Your task to perform on an android device: toggle data saver in the chrome app Image 0: 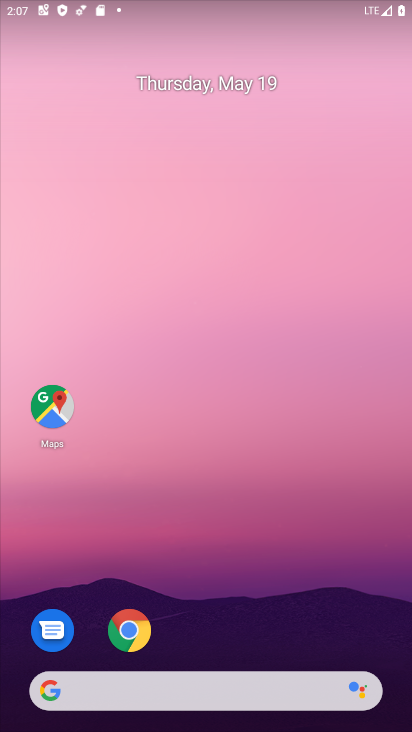
Step 0: click (129, 633)
Your task to perform on an android device: toggle data saver in the chrome app Image 1: 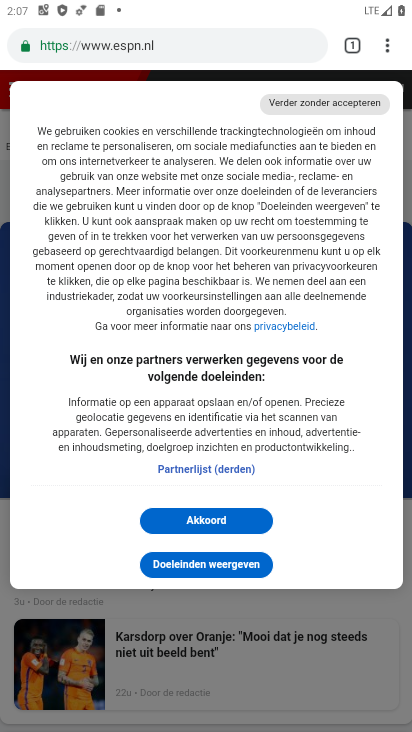
Step 1: click (385, 47)
Your task to perform on an android device: toggle data saver in the chrome app Image 2: 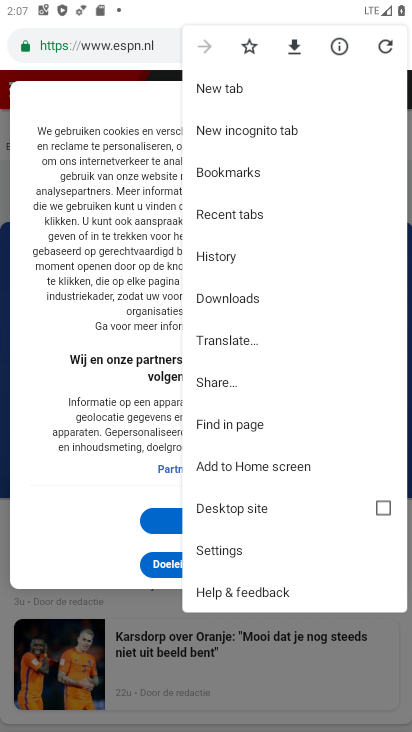
Step 2: click (230, 548)
Your task to perform on an android device: toggle data saver in the chrome app Image 3: 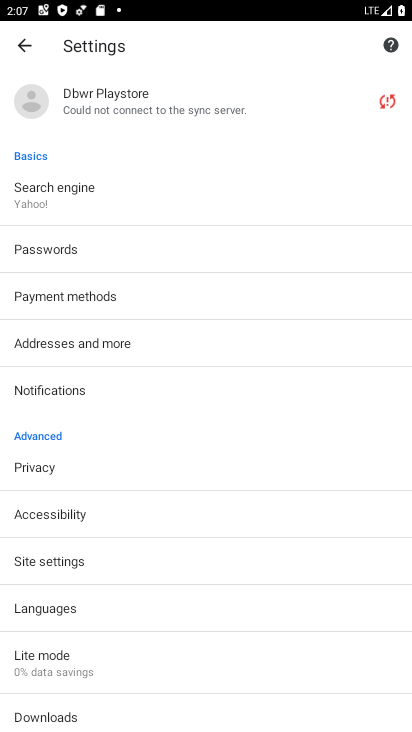
Step 3: drag from (181, 617) to (176, 413)
Your task to perform on an android device: toggle data saver in the chrome app Image 4: 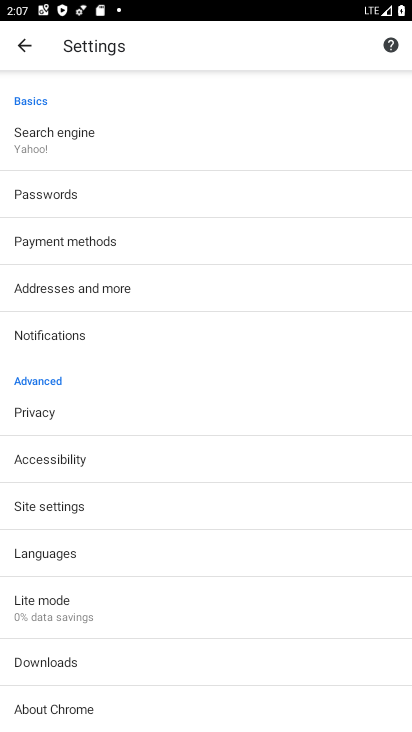
Step 4: click (41, 606)
Your task to perform on an android device: toggle data saver in the chrome app Image 5: 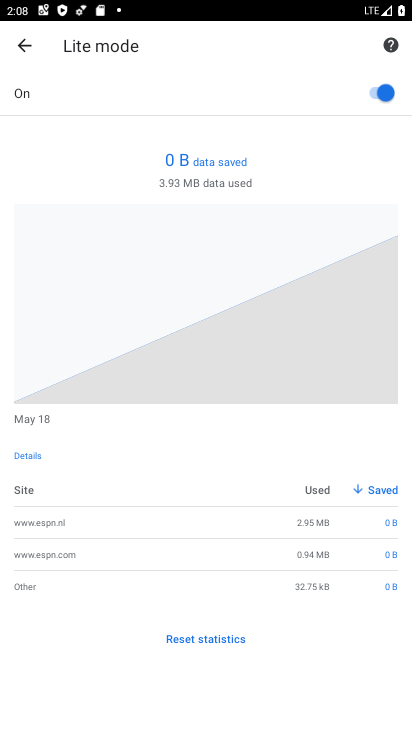
Step 5: click (367, 88)
Your task to perform on an android device: toggle data saver in the chrome app Image 6: 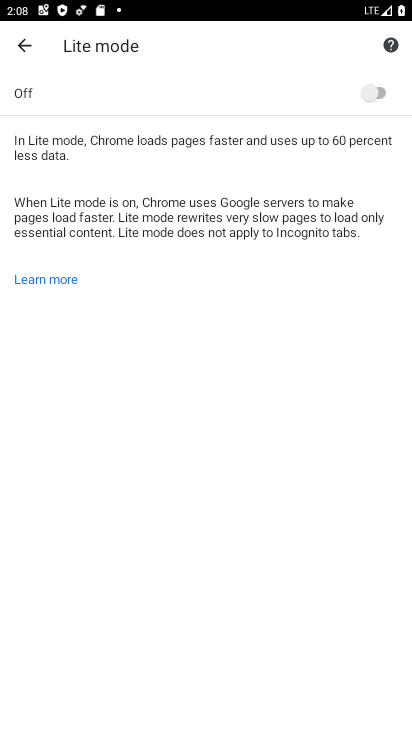
Step 6: task complete